Your task to perform on an android device: add a contact in the contacts app Image 0: 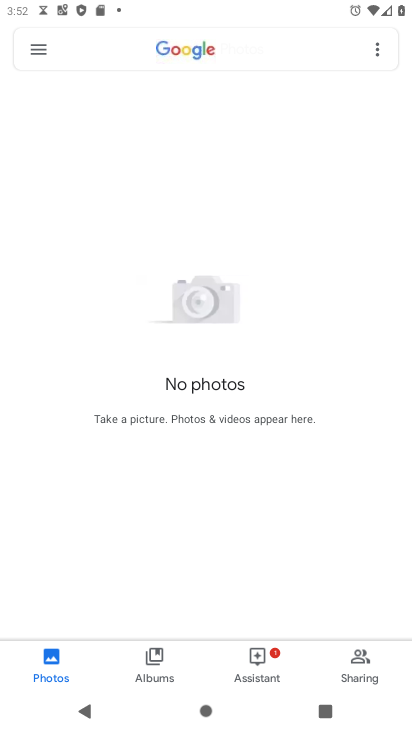
Step 0: press home button
Your task to perform on an android device: add a contact in the contacts app Image 1: 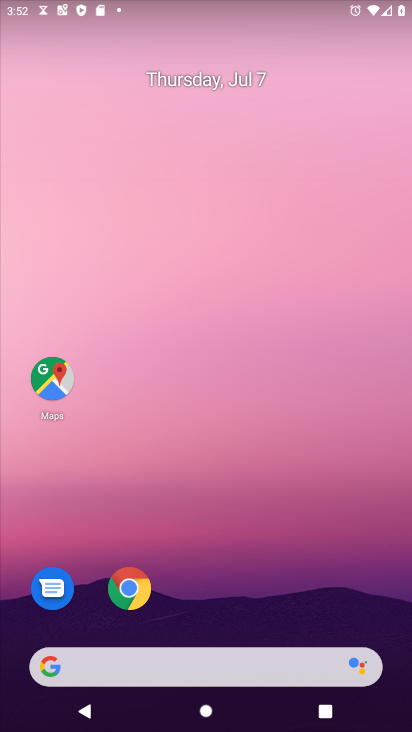
Step 1: drag from (249, 600) to (210, 170)
Your task to perform on an android device: add a contact in the contacts app Image 2: 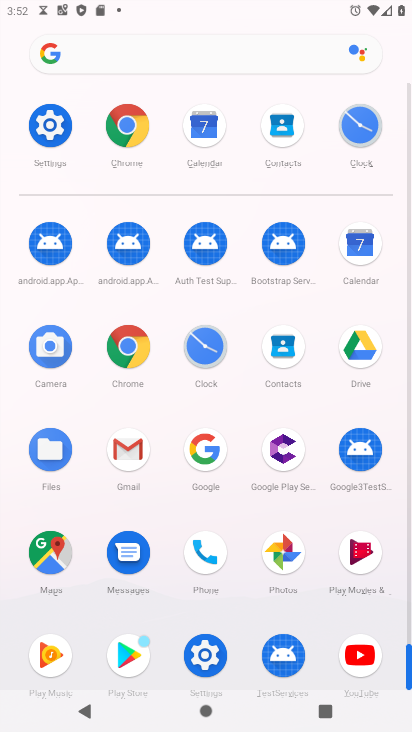
Step 2: click (282, 128)
Your task to perform on an android device: add a contact in the contacts app Image 3: 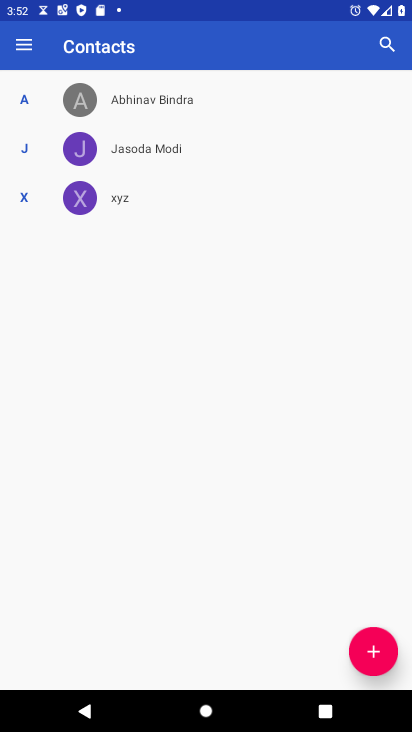
Step 3: click (374, 652)
Your task to perform on an android device: add a contact in the contacts app Image 4: 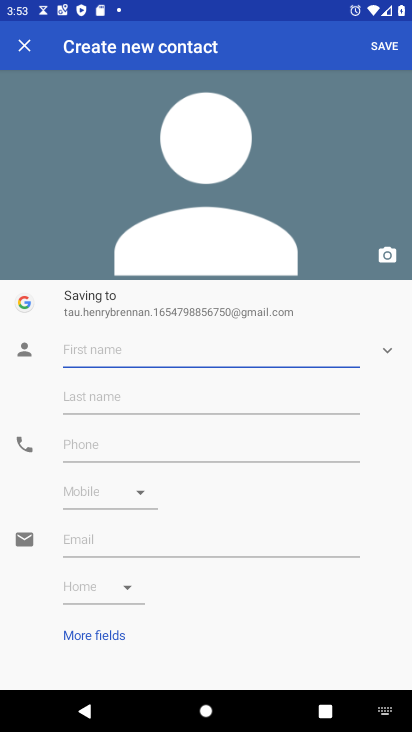
Step 4: type "Naveen"
Your task to perform on an android device: add a contact in the contacts app Image 5: 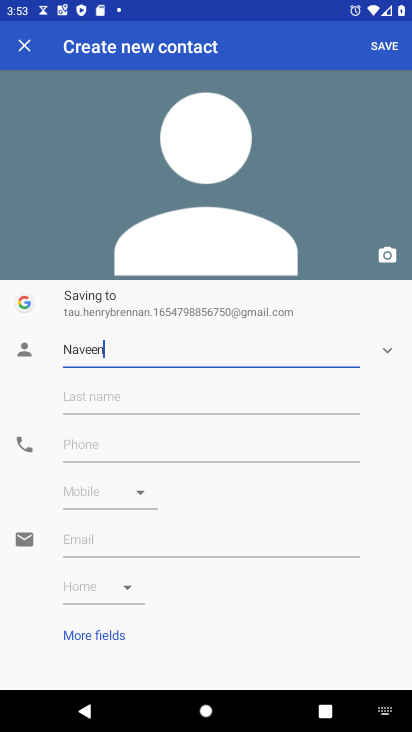
Step 5: click (197, 408)
Your task to perform on an android device: add a contact in the contacts app Image 6: 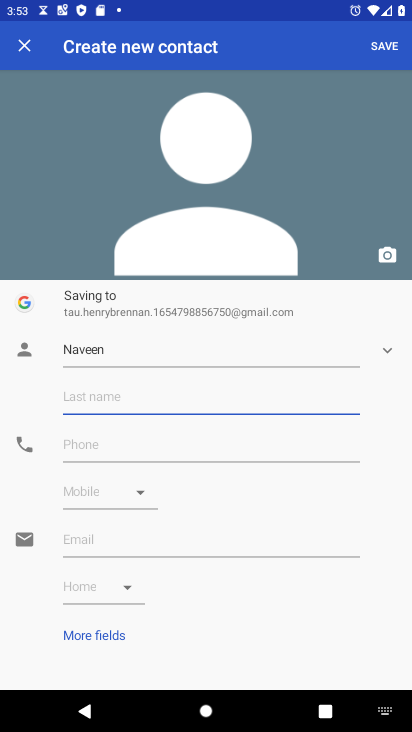
Step 6: type "Rawat"
Your task to perform on an android device: add a contact in the contacts app Image 7: 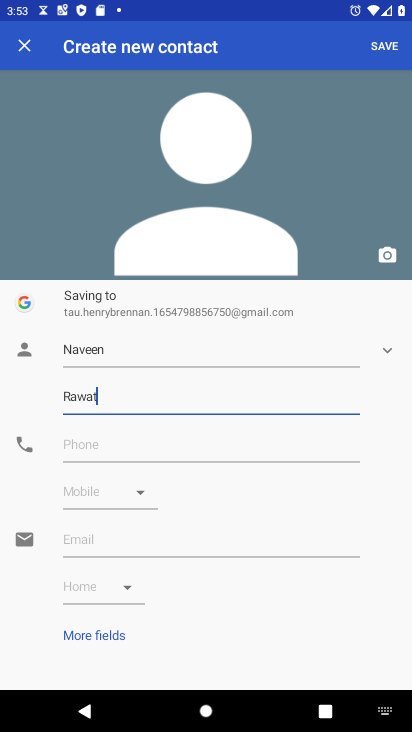
Step 7: click (208, 443)
Your task to perform on an android device: add a contact in the contacts app Image 8: 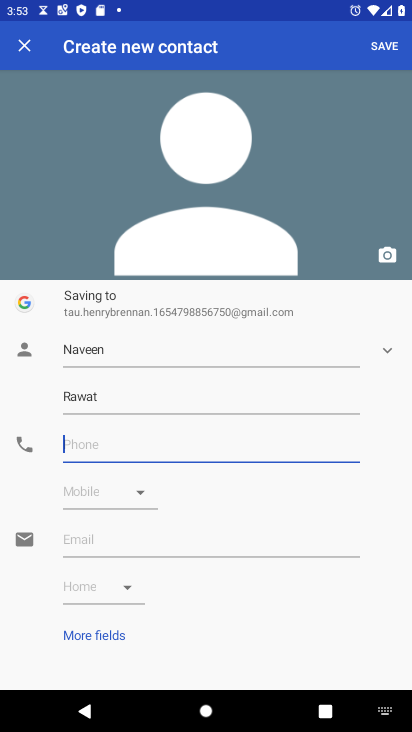
Step 8: type "0998877665544"
Your task to perform on an android device: add a contact in the contacts app Image 9: 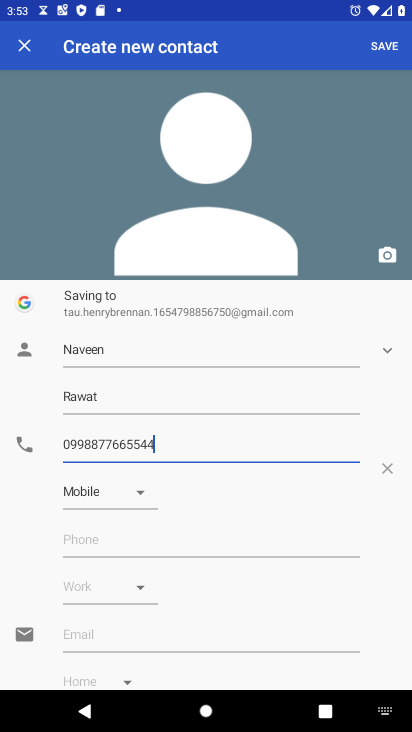
Step 9: click (389, 47)
Your task to perform on an android device: add a contact in the contacts app Image 10: 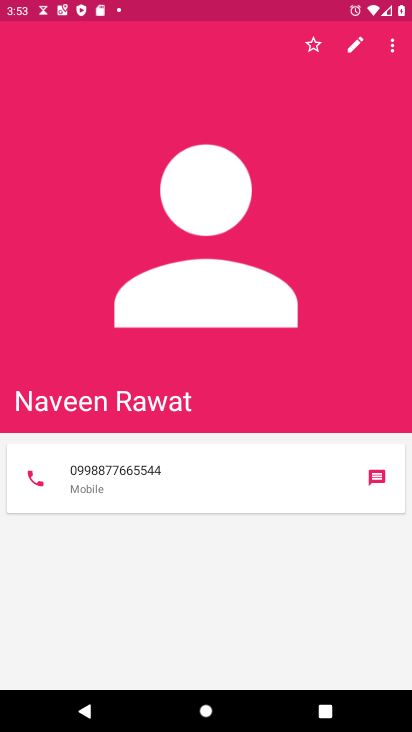
Step 10: task complete